Your task to perform on an android device: turn on javascript in the chrome app Image 0: 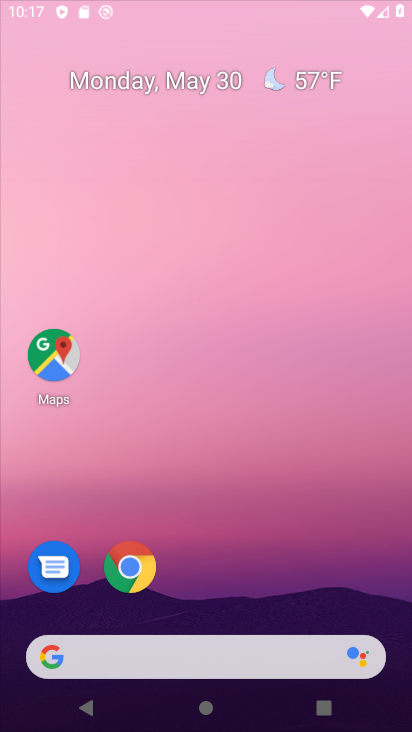
Step 0: click (169, 295)
Your task to perform on an android device: turn on javascript in the chrome app Image 1: 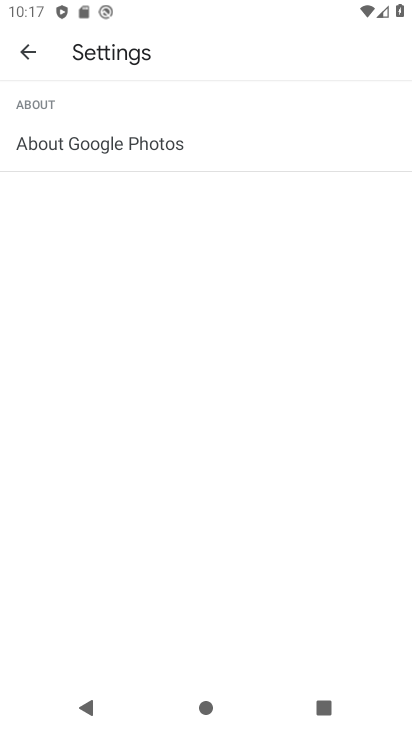
Step 1: press home button
Your task to perform on an android device: turn on javascript in the chrome app Image 2: 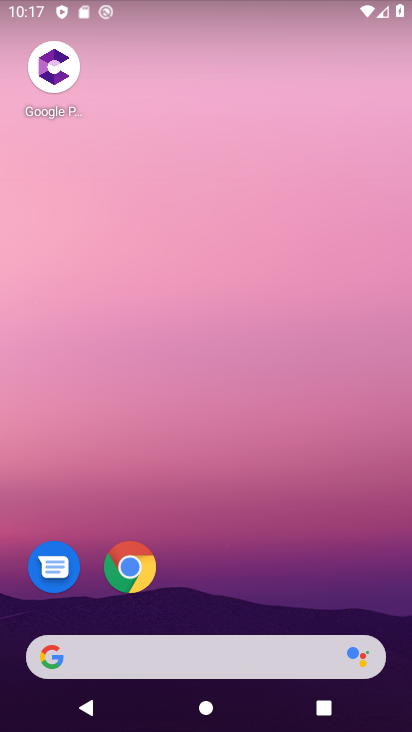
Step 2: click (137, 564)
Your task to perform on an android device: turn on javascript in the chrome app Image 3: 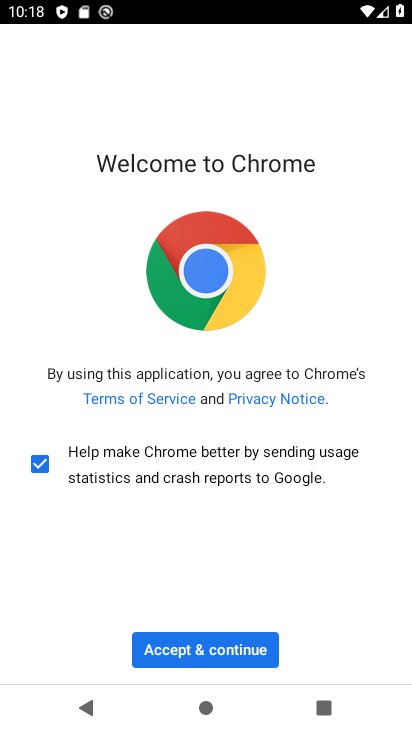
Step 3: click (179, 627)
Your task to perform on an android device: turn on javascript in the chrome app Image 4: 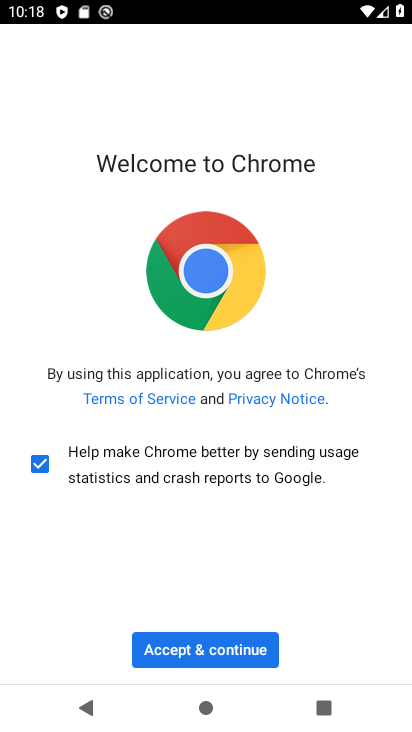
Step 4: click (221, 651)
Your task to perform on an android device: turn on javascript in the chrome app Image 5: 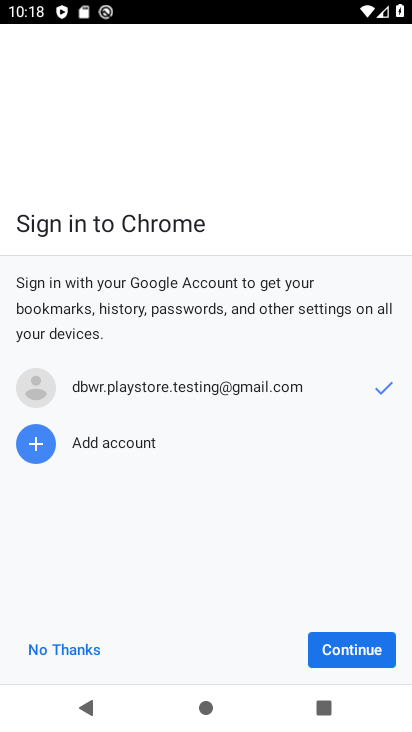
Step 5: click (339, 637)
Your task to perform on an android device: turn on javascript in the chrome app Image 6: 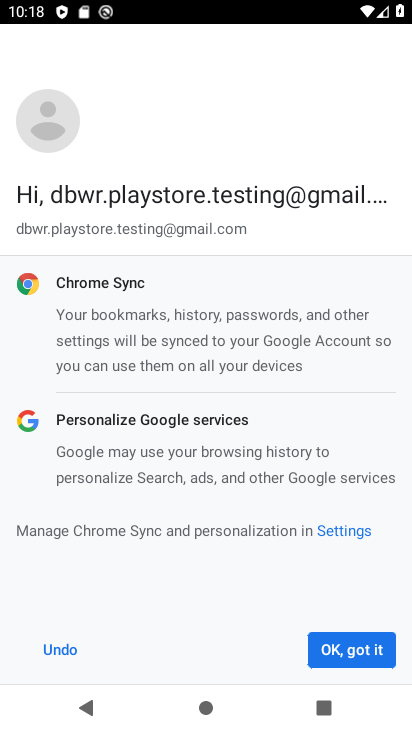
Step 6: click (362, 641)
Your task to perform on an android device: turn on javascript in the chrome app Image 7: 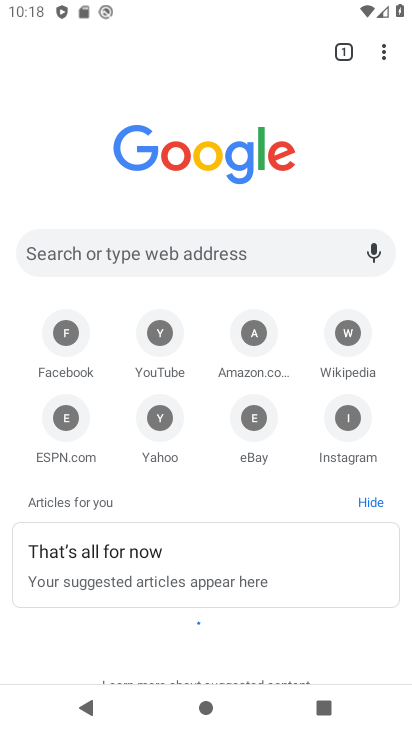
Step 7: click (376, 51)
Your task to perform on an android device: turn on javascript in the chrome app Image 8: 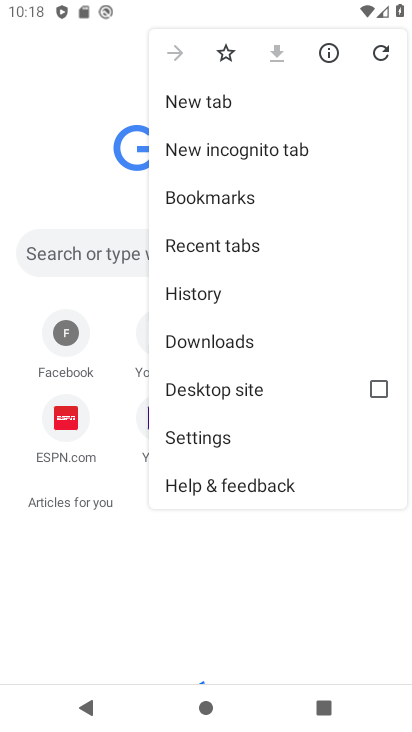
Step 8: drag from (257, 438) to (244, 229)
Your task to perform on an android device: turn on javascript in the chrome app Image 9: 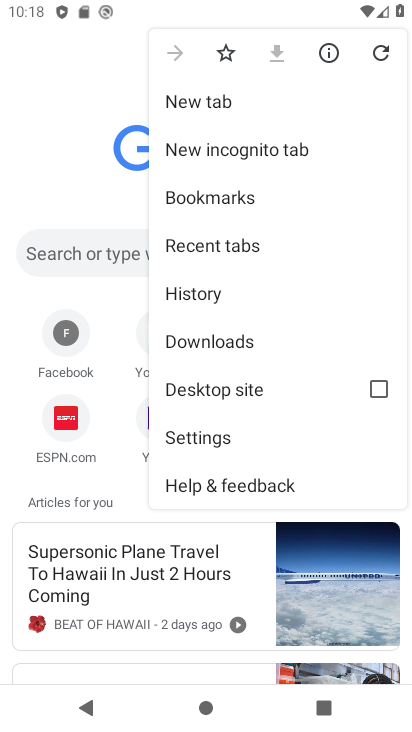
Step 9: click (213, 429)
Your task to perform on an android device: turn on javascript in the chrome app Image 10: 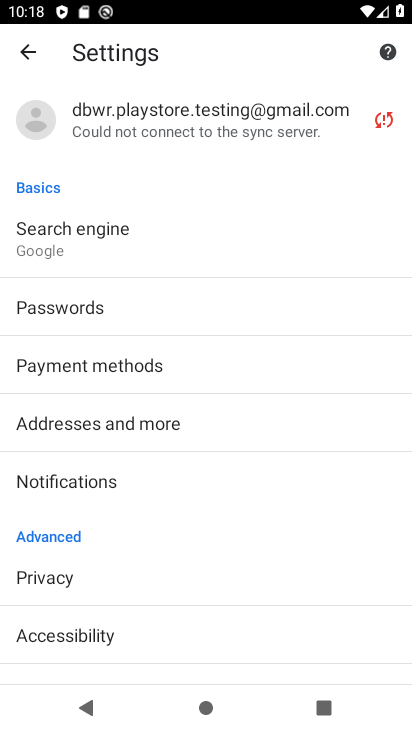
Step 10: drag from (145, 608) to (217, 190)
Your task to perform on an android device: turn on javascript in the chrome app Image 11: 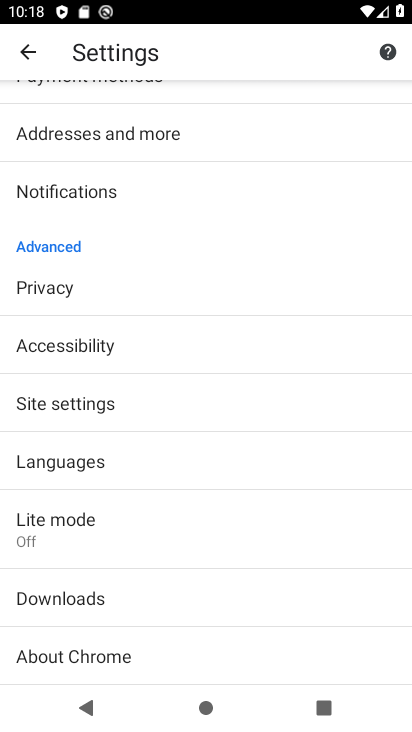
Step 11: click (126, 412)
Your task to perform on an android device: turn on javascript in the chrome app Image 12: 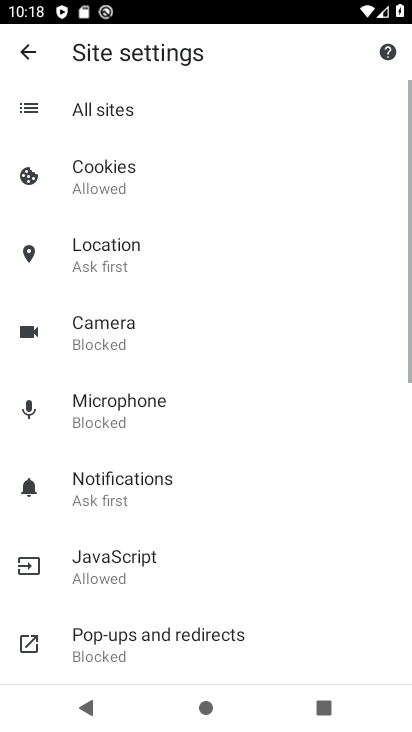
Step 12: click (171, 567)
Your task to perform on an android device: turn on javascript in the chrome app Image 13: 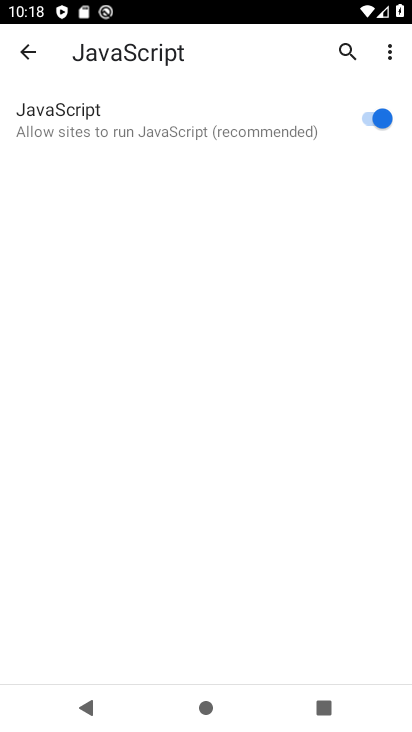
Step 13: task complete